Your task to perform on an android device: Open calendar and show me the third week of next month Image 0: 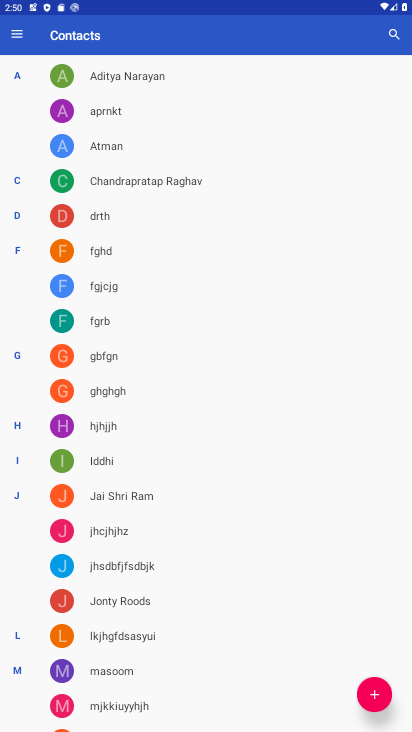
Step 0: press home button
Your task to perform on an android device: Open calendar and show me the third week of next month Image 1: 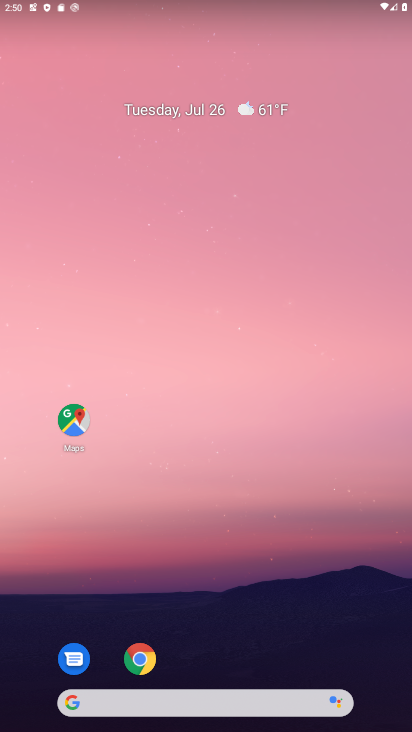
Step 1: drag from (181, 642) to (251, 104)
Your task to perform on an android device: Open calendar and show me the third week of next month Image 2: 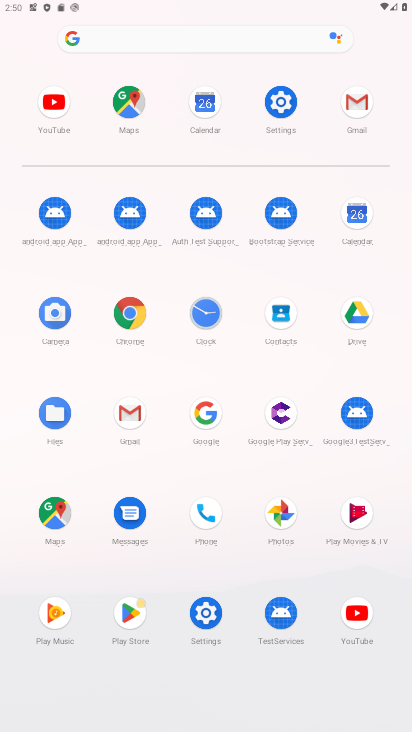
Step 2: click (358, 215)
Your task to perform on an android device: Open calendar and show me the third week of next month Image 3: 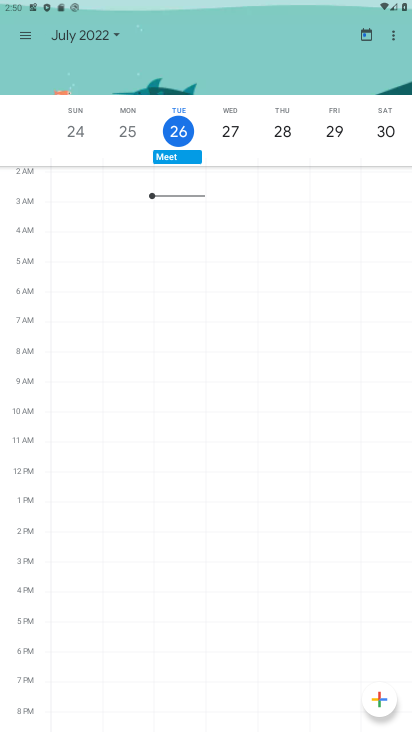
Step 3: click (119, 39)
Your task to perform on an android device: Open calendar and show me the third week of next month Image 4: 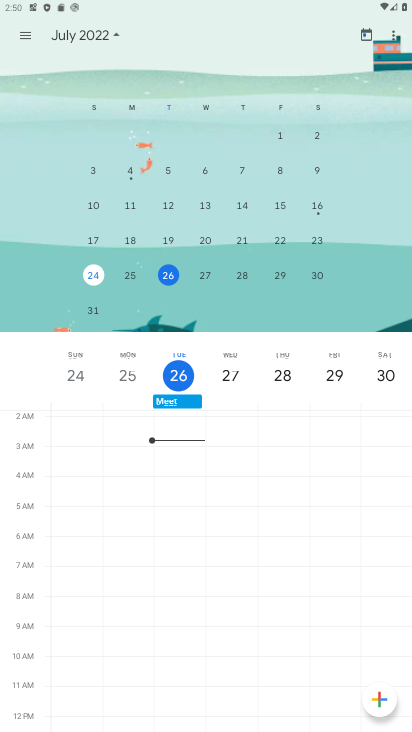
Step 4: drag from (12, 215) to (90, 193)
Your task to perform on an android device: Open calendar and show me the third week of next month Image 5: 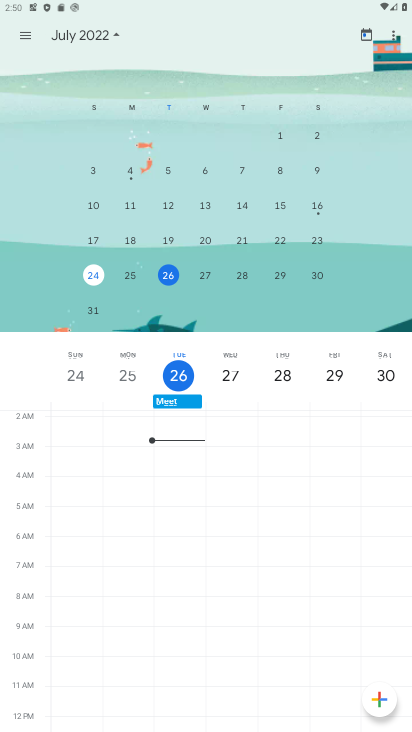
Step 5: click (237, 195)
Your task to perform on an android device: Open calendar and show me the third week of next month Image 6: 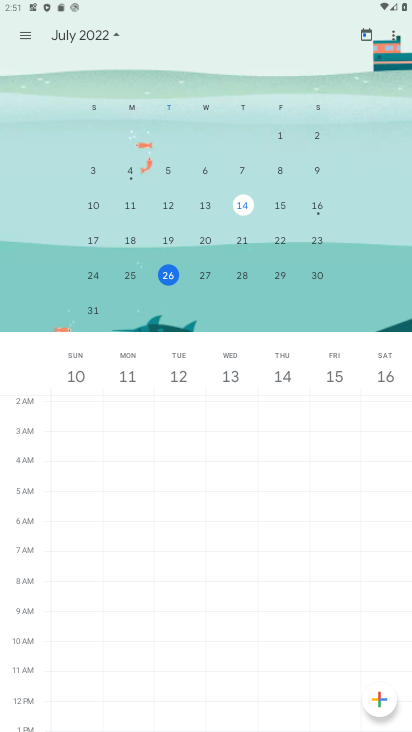
Step 6: click (14, 161)
Your task to perform on an android device: Open calendar and show me the third week of next month Image 7: 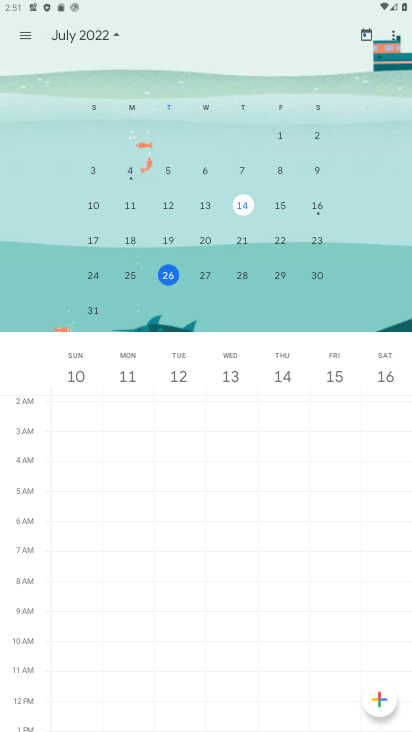
Step 7: drag from (250, 232) to (1, 174)
Your task to perform on an android device: Open calendar and show me the third week of next month Image 8: 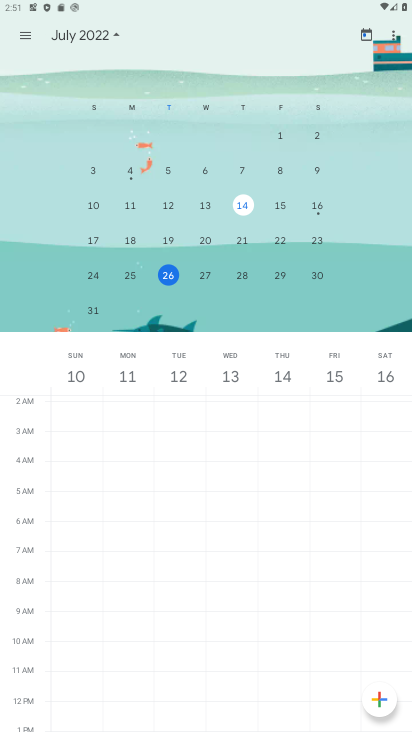
Step 8: drag from (295, 223) to (31, 118)
Your task to perform on an android device: Open calendar and show me the third week of next month Image 9: 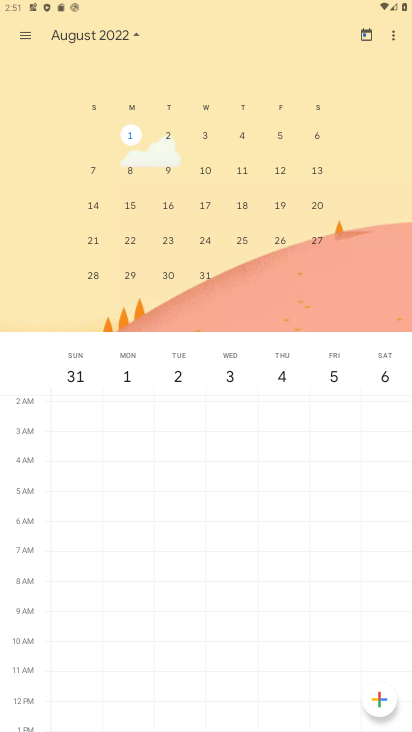
Step 9: click (101, 209)
Your task to perform on an android device: Open calendar and show me the third week of next month Image 10: 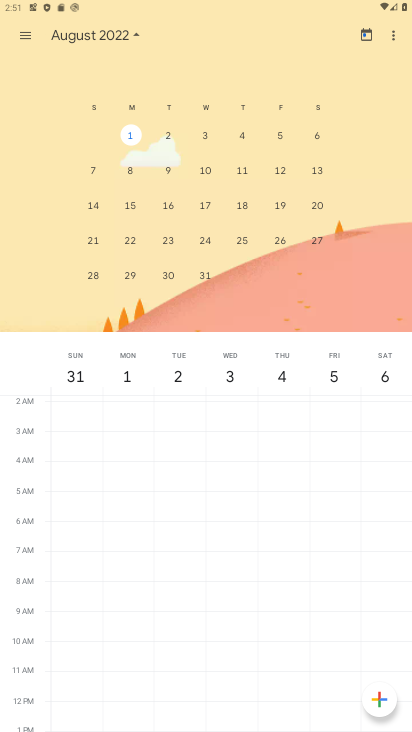
Step 10: click (101, 209)
Your task to perform on an android device: Open calendar and show me the third week of next month Image 11: 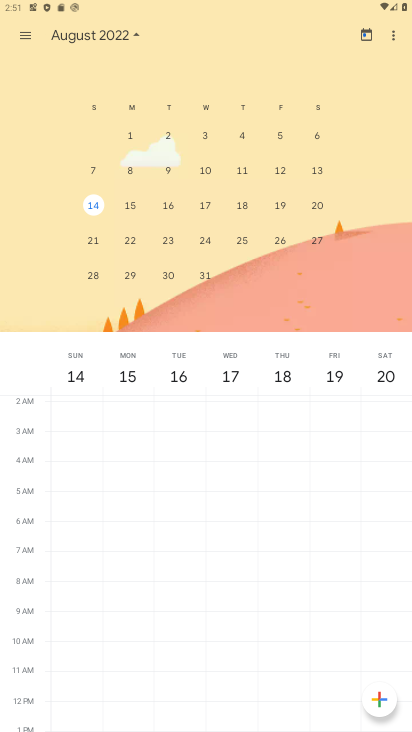
Step 11: task complete